Your task to perform on an android device: turn on data saver in the chrome app Image 0: 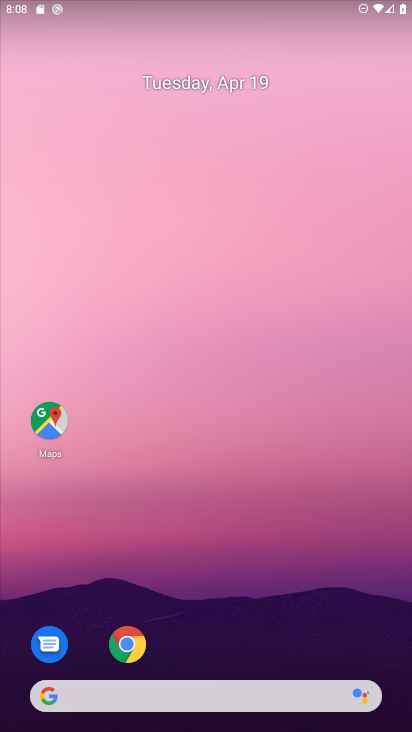
Step 0: drag from (235, 384) to (255, 237)
Your task to perform on an android device: turn on data saver in the chrome app Image 1: 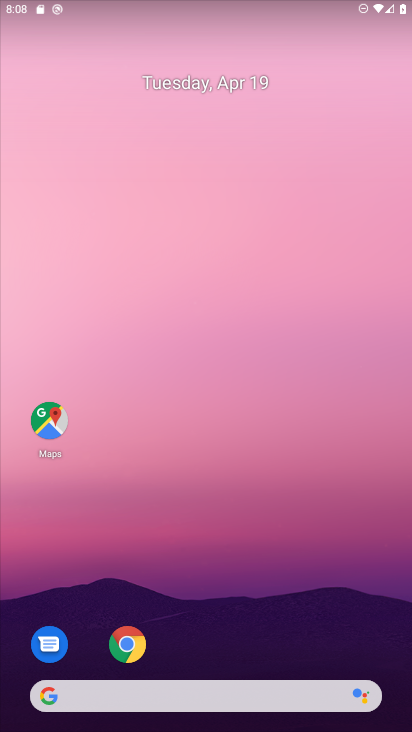
Step 1: click (125, 648)
Your task to perform on an android device: turn on data saver in the chrome app Image 2: 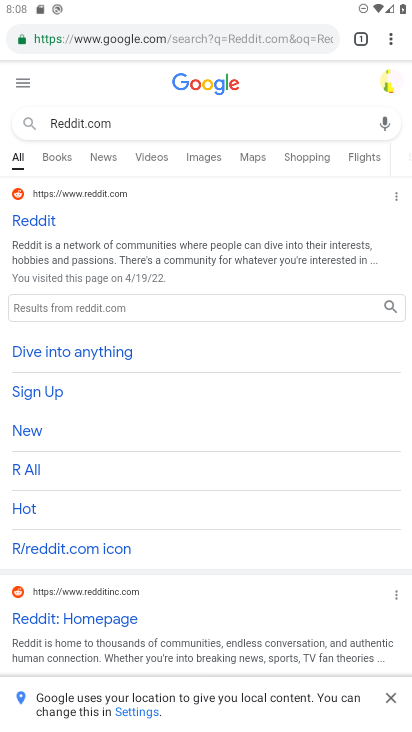
Step 2: click (387, 42)
Your task to perform on an android device: turn on data saver in the chrome app Image 3: 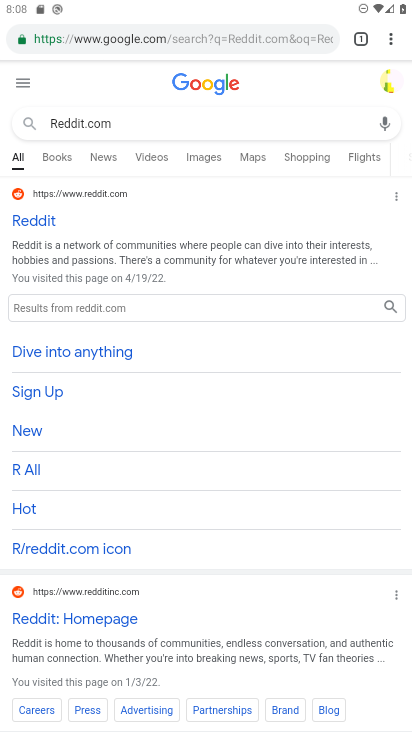
Step 3: click (394, 40)
Your task to perform on an android device: turn on data saver in the chrome app Image 4: 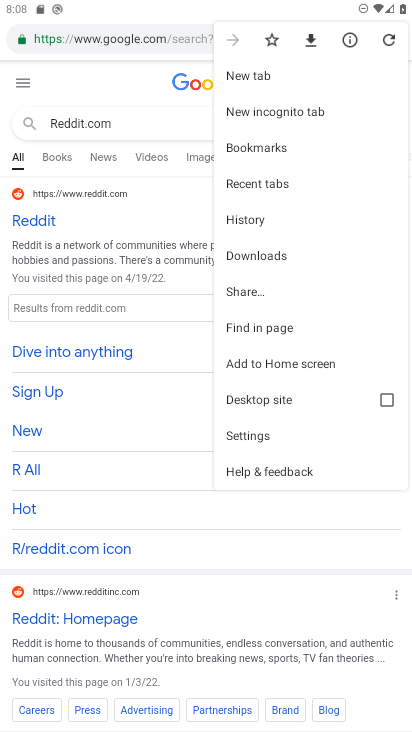
Step 4: click (250, 436)
Your task to perform on an android device: turn on data saver in the chrome app Image 5: 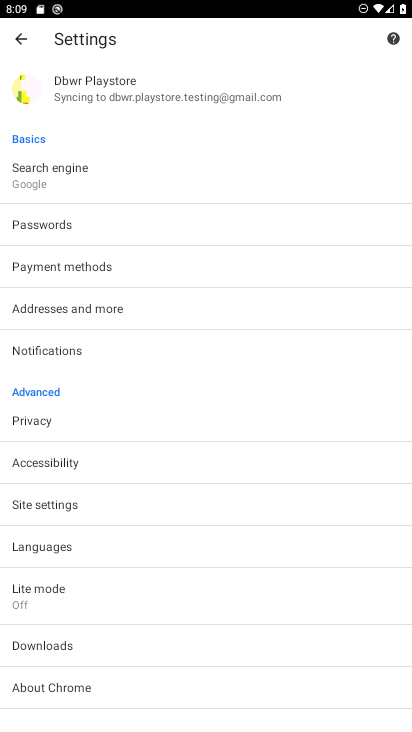
Step 5: click (38, 600)
Your task to perform on an android device: turn on data saver in the chrome app Image 6: 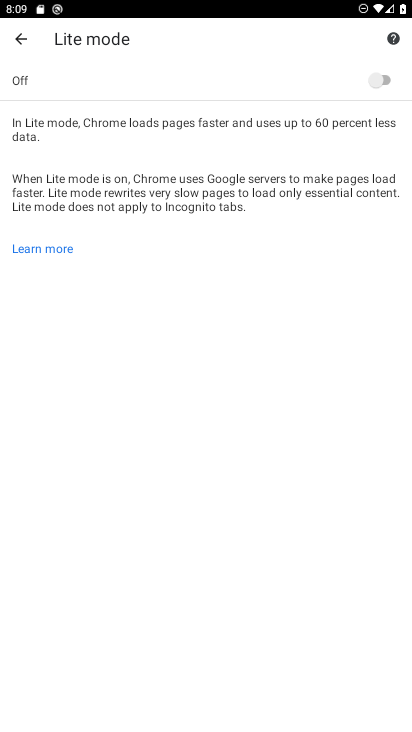
Step 6: click (388, 76)
Your task to perform on an android device: turn on data saver in the chrome app Image 7: 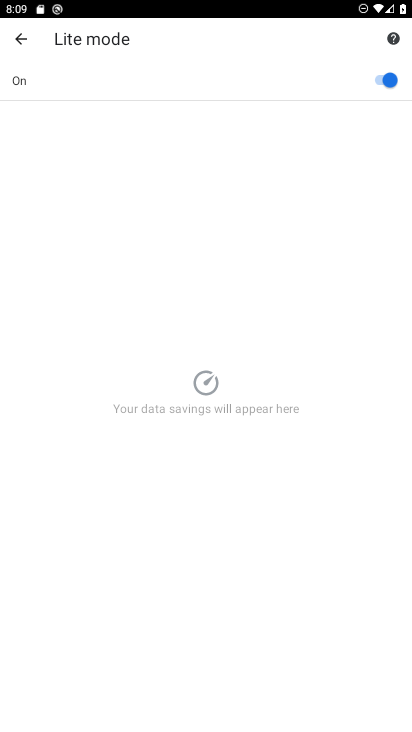
Step 7: task complete